Your task to perform on an android device: Go to CNN.com Image 0: 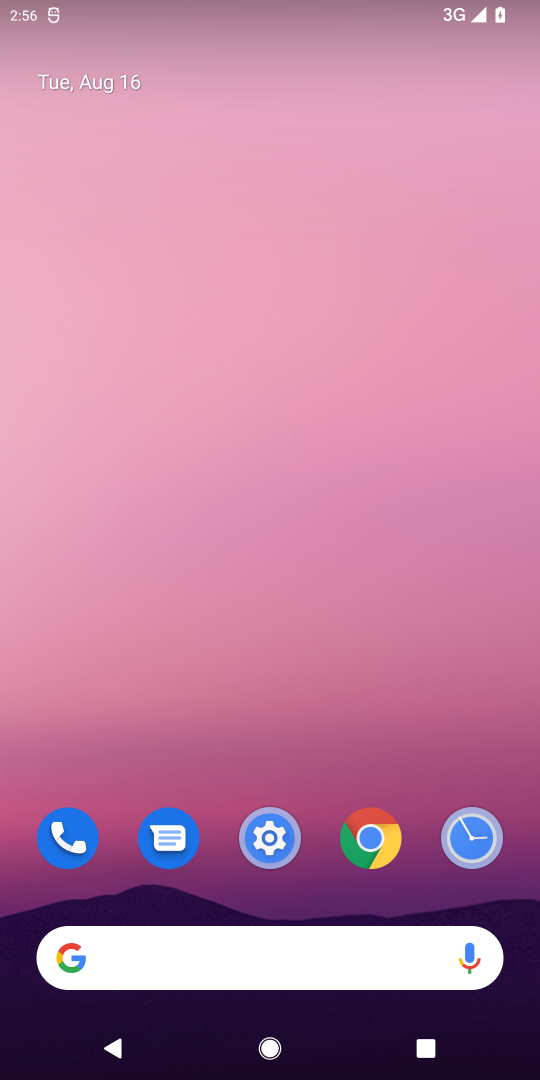
Step 0: click (73, 957)
Your task to perform on an android device: Go to CNN.com Image 1: 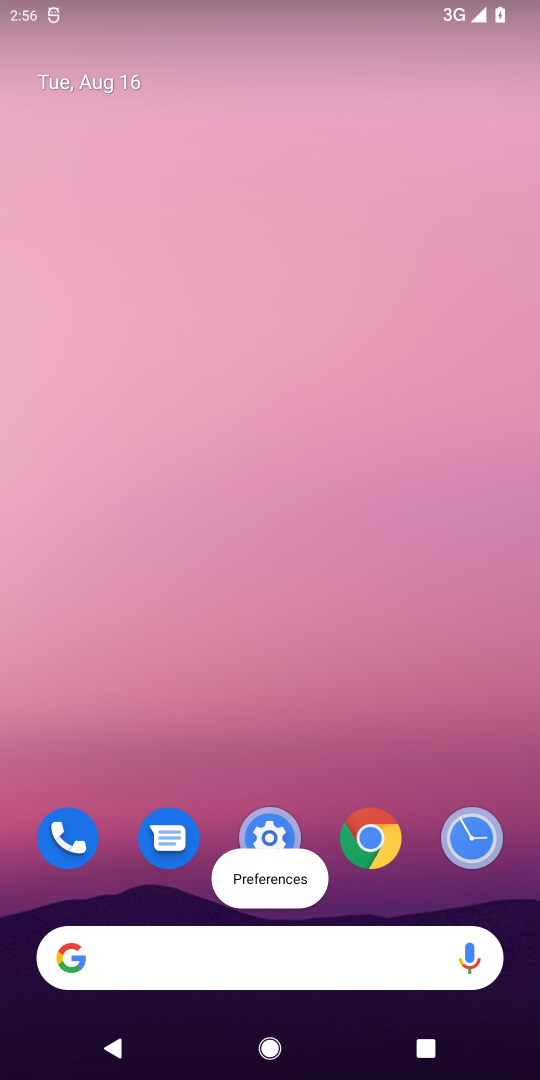
Step 1: click (66, 955)
Your task to perform on an android device: Go to CNN.com Image 2: 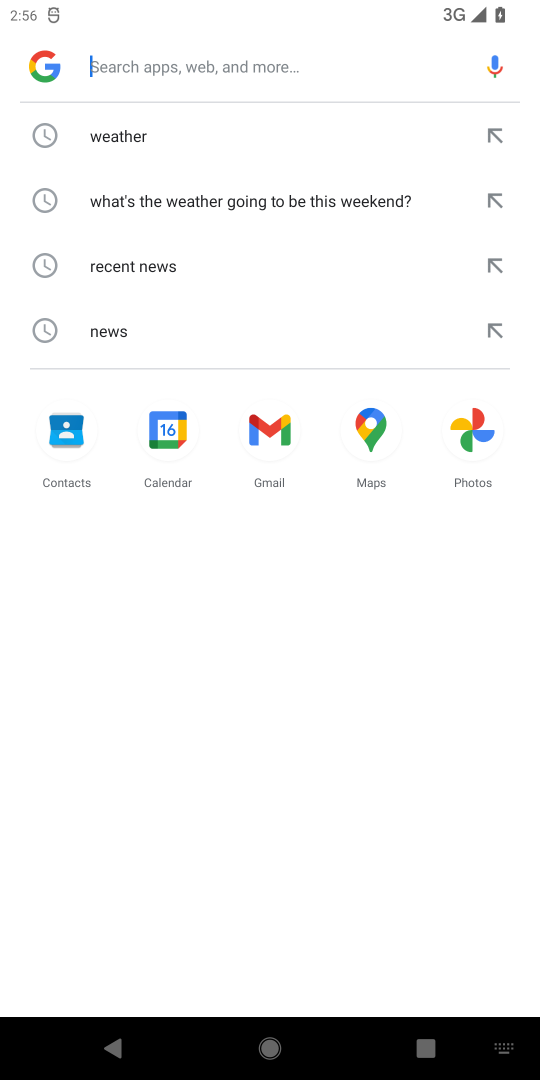
Step 2: type "CNN.com"
Your task to perform on an android device: Go to CNN.com Image 3: 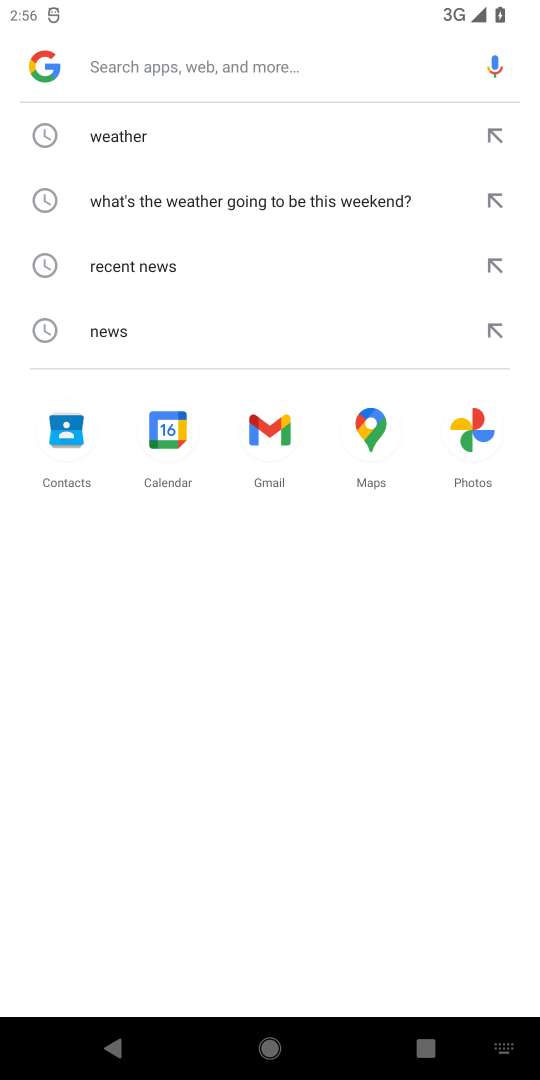
Step 3: click (134, 65)
Your task to perform on an android device: Go to CNN.com Image 4: 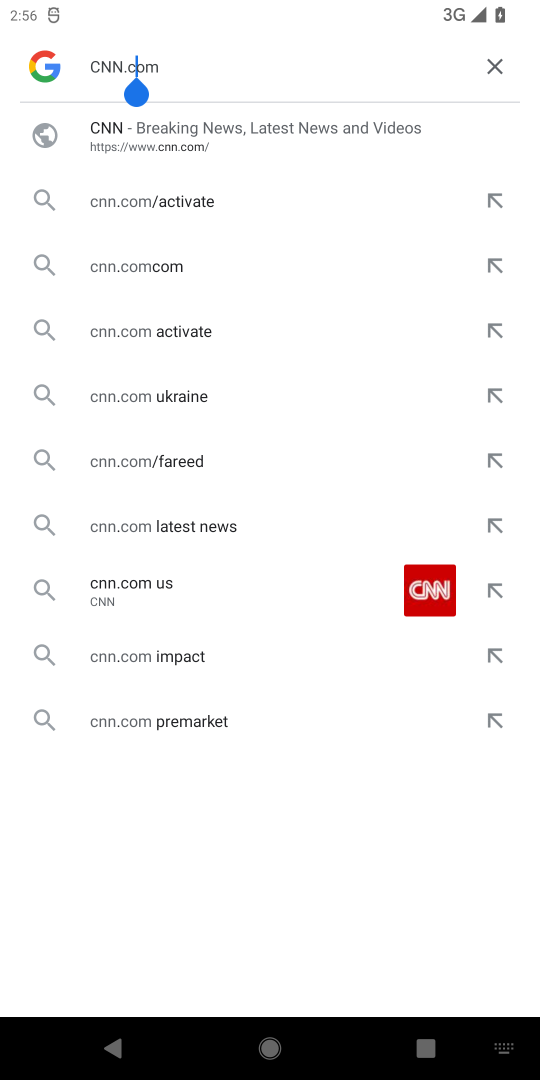
Step 4: press enter
Your task to perform on an android device: Go to CNN.com Image 5: 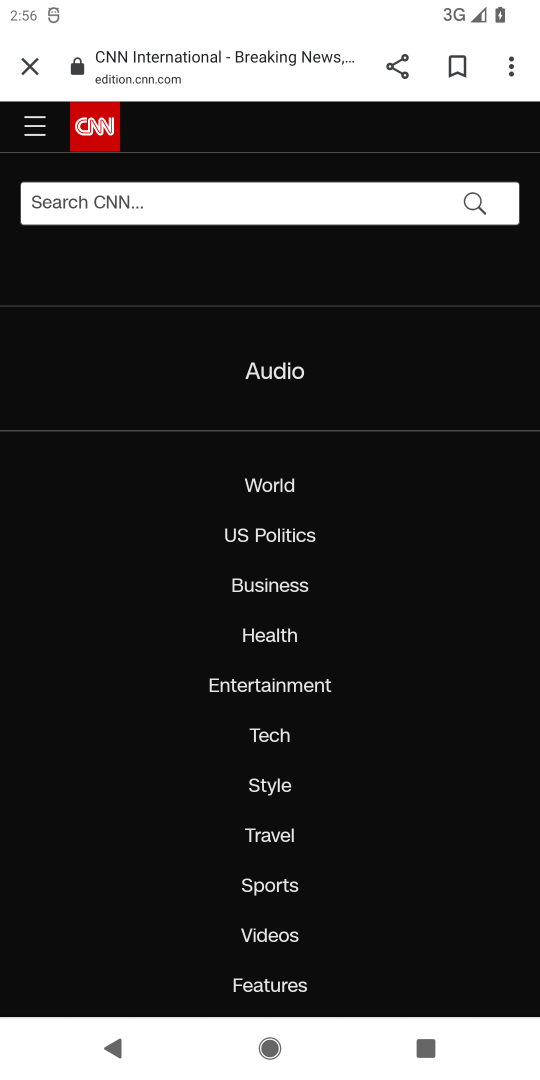
Step 5: task complete